Your task to perform on an android device: Add razer blade to the cart on target Image 0: 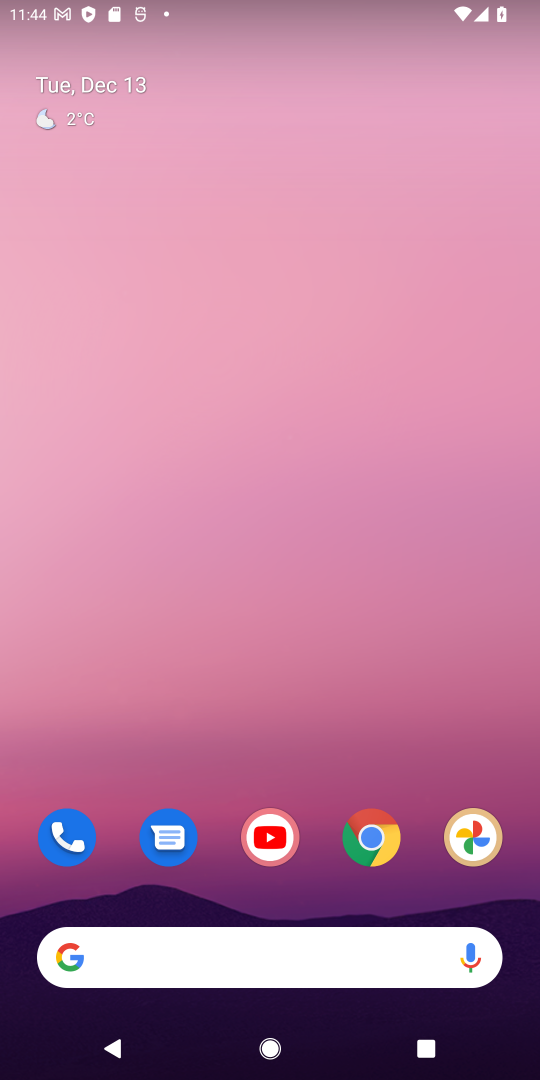
Step 0: click (381, 833)
Your task to perform on an android device: Add razer blade to the cart on target Image 1: 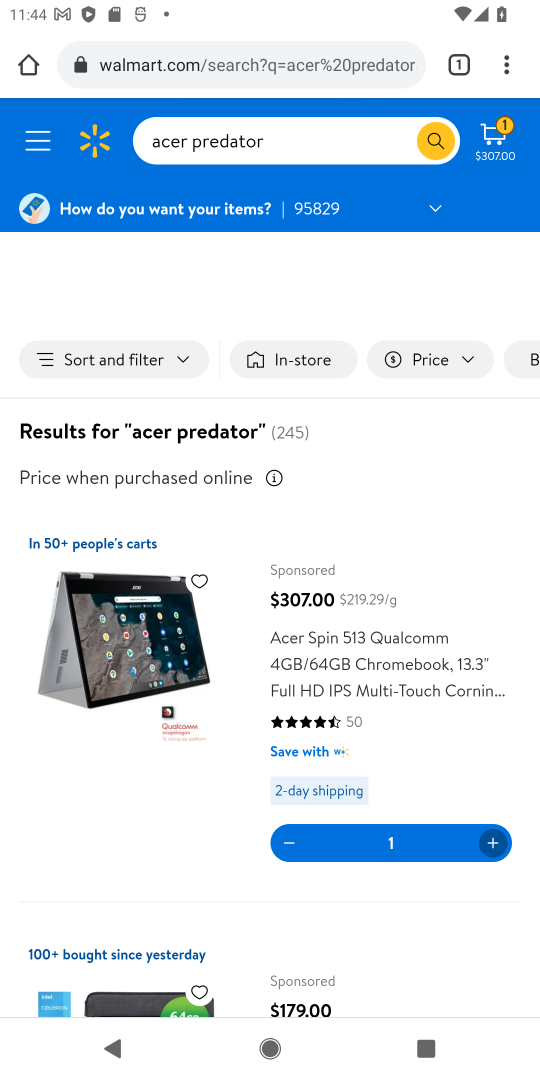
Step 1: click (270, 56)
Your task to perform on an android device: Add razer blade to the cart on target Image 2: 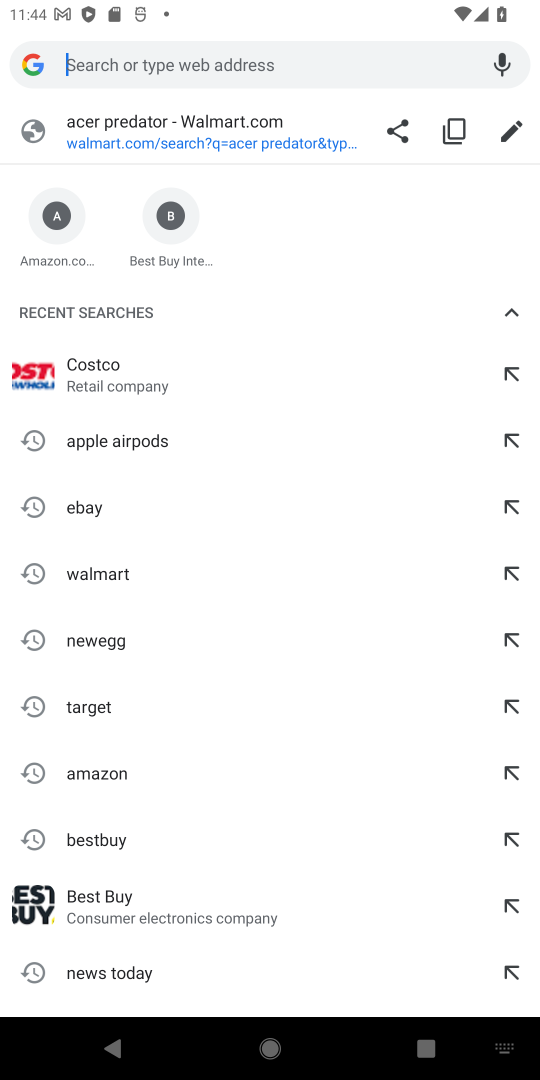
Step 2: click (153, 711)
Your task to perform on an android device: Add razer blade to the cart on target Image 3: 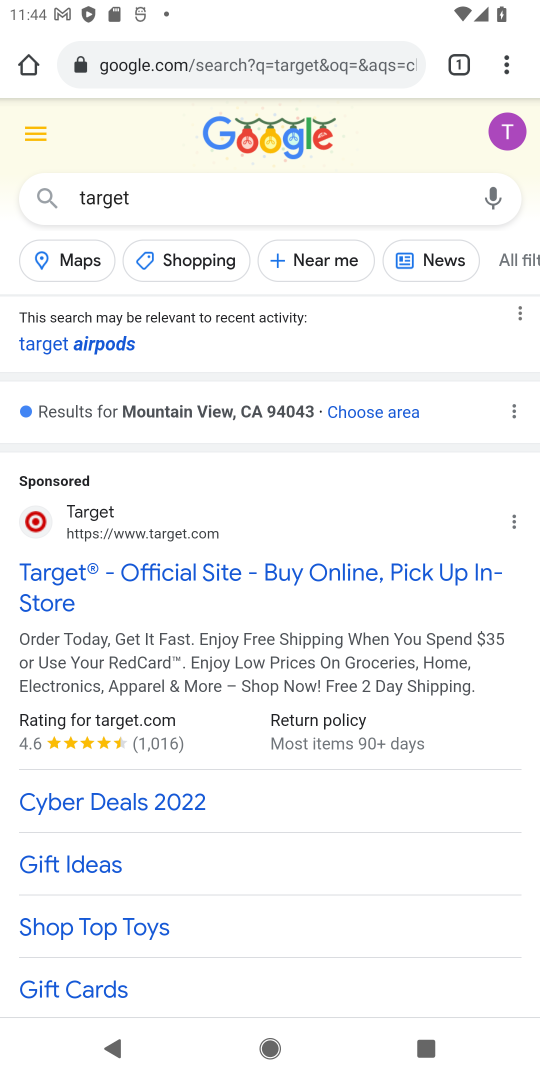
Step 3: click (47, 590)
Your task to perform on an android device: Add razer blade to the cart on target Image 4: 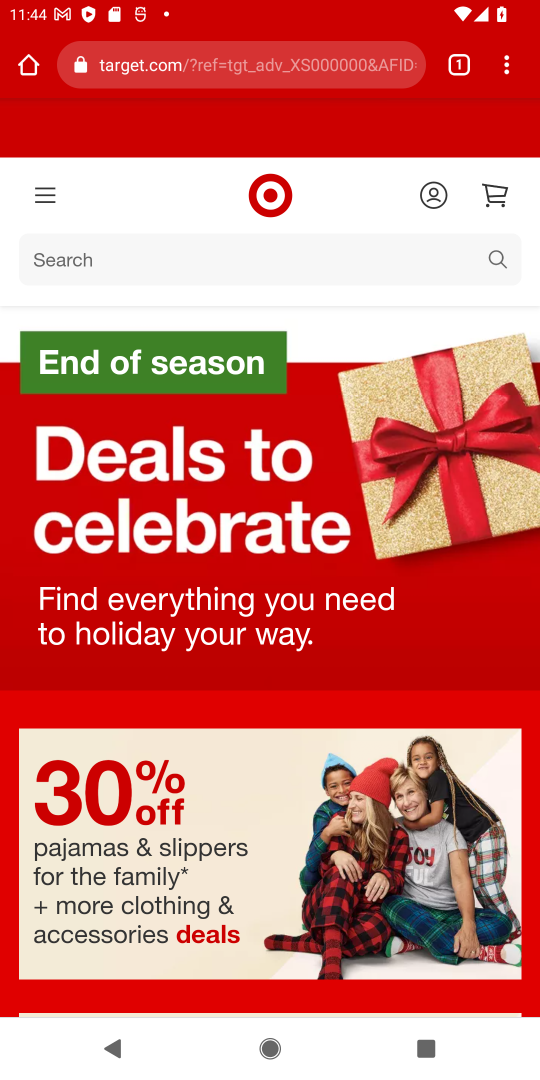
Step 4: click (107, 275)
Your task to perform on an android device: Add razer blade to the cart on target Image 5: 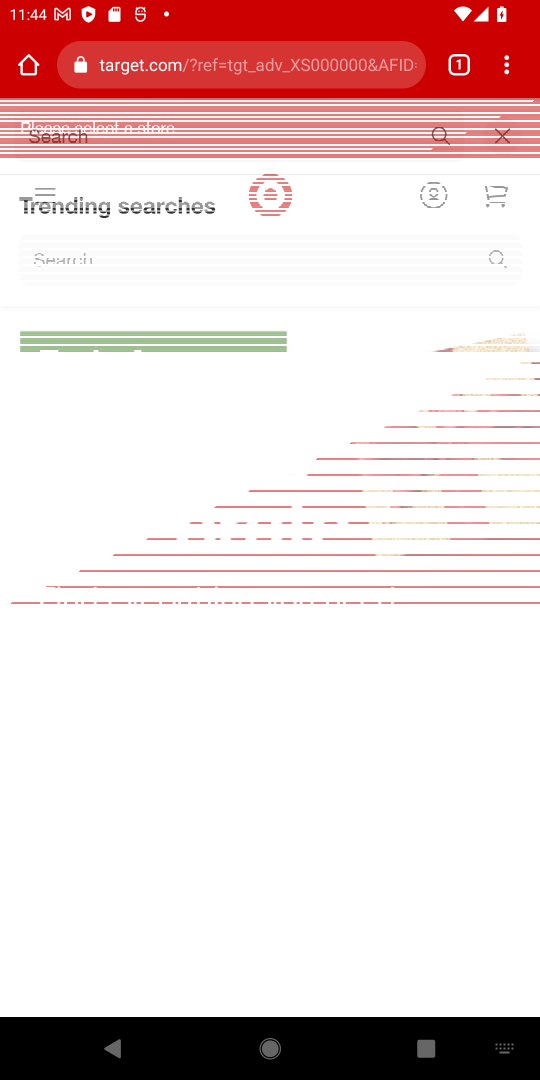
Step 5: type "razerblade "
Your task to perform on an android device: Add razer blade to the cart on target Image 6: 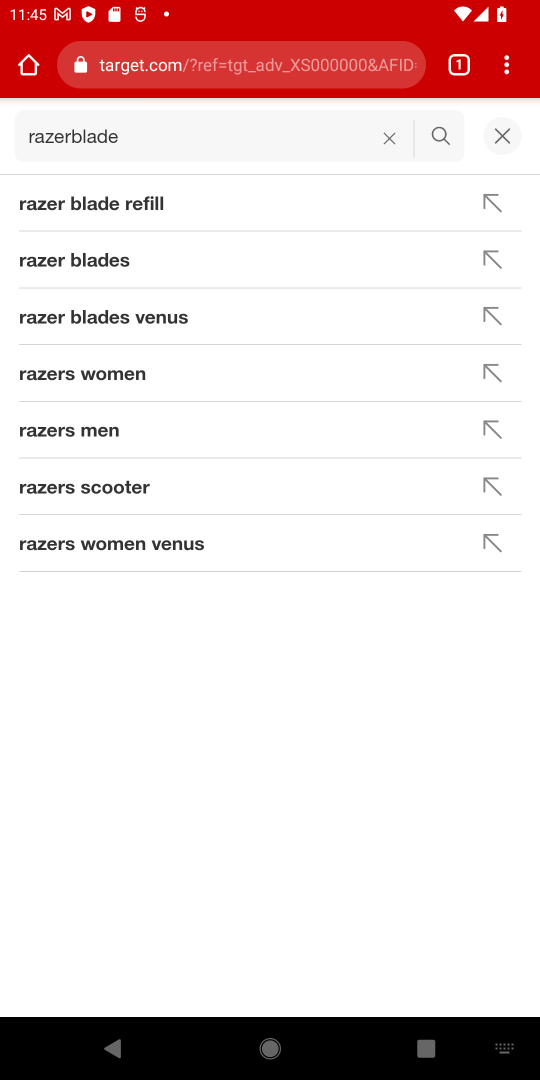
Step 6: click (160, 247)
Your task to perform on an android device: Add razer blade to the cart on target Image 7: 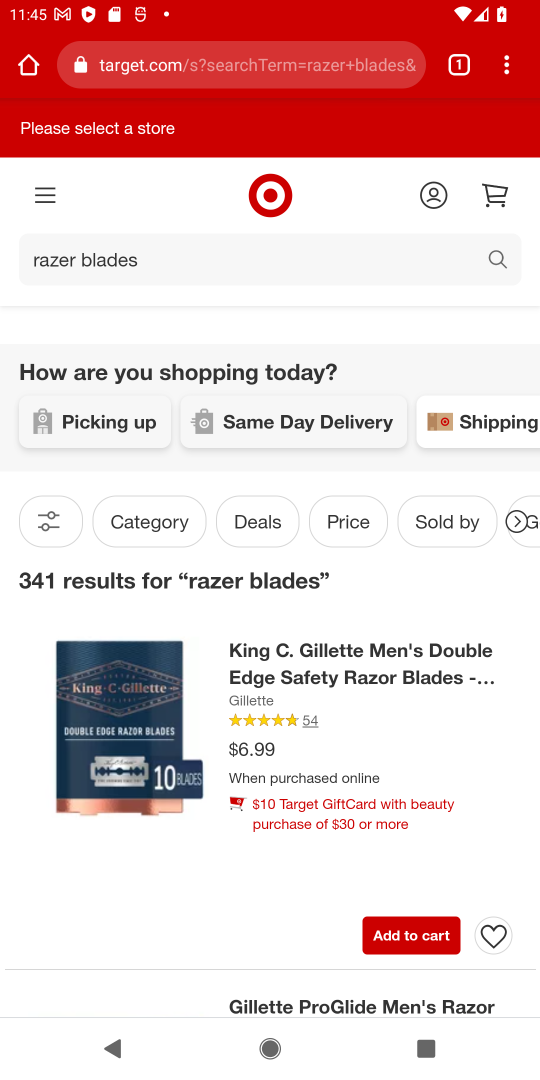
Step 7: click (429, 927)
Your task to perform on an android device: Add razer blade to the cart on target Image 8: 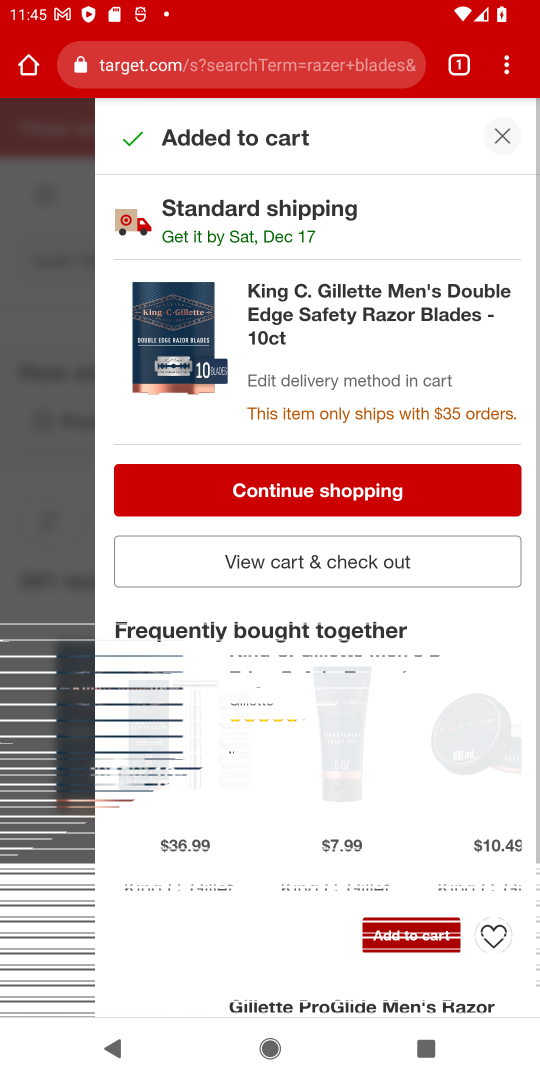
Step 8: click (237, 507)
Your task to perform on an android device: Add razer blade to the cart on target Image 9: 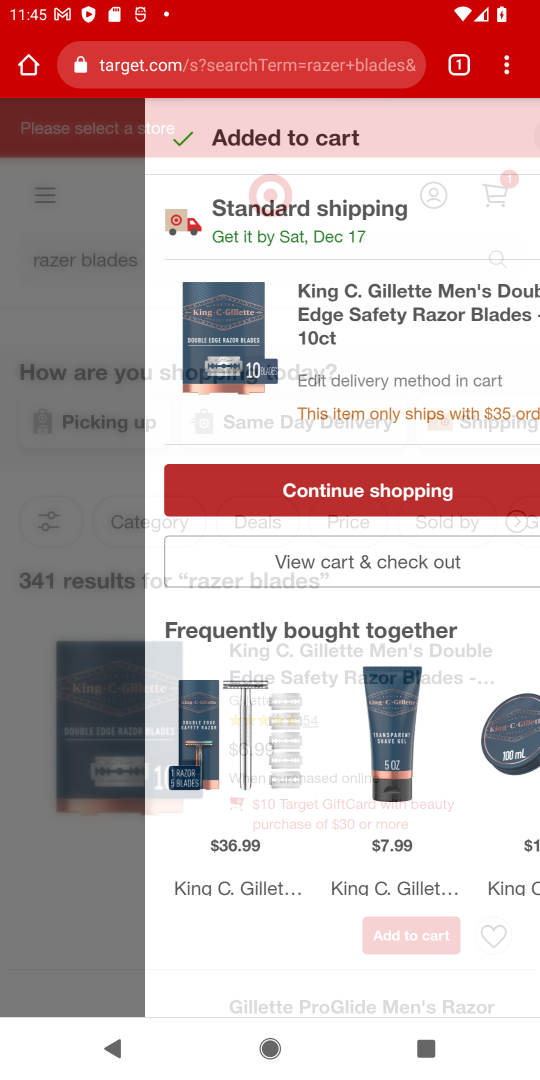
Step 9: task complete